Your task to perform on an android device: move an email to a new category in the gmail app Image 0: 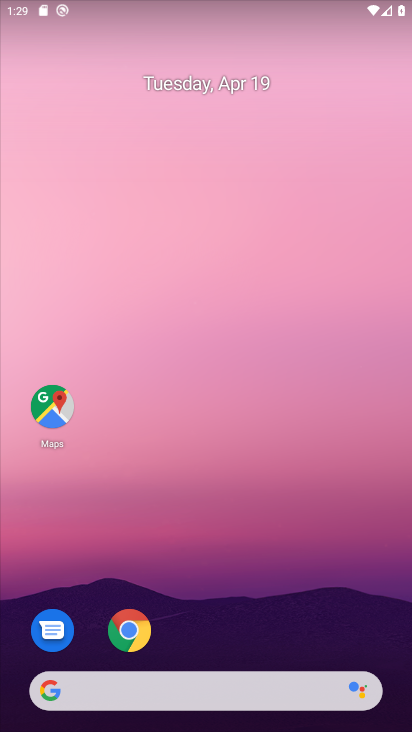
Step 0: drag from (218, 620) to (262, 2)
Your task to perform on an android device: move an email to a new category in the gmail app Image 1: 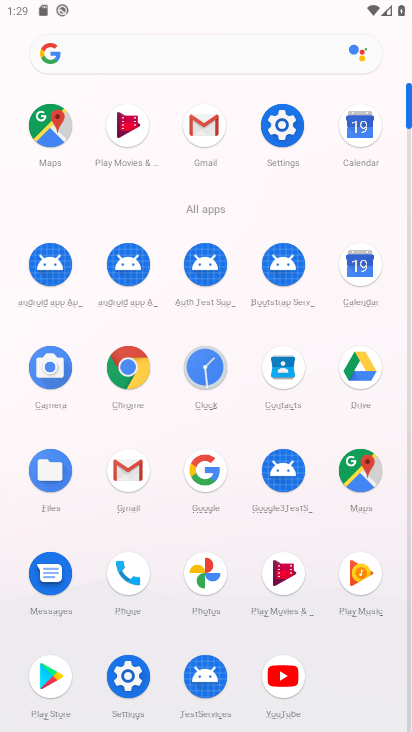
Step 1: click (208, 128)
Your task to perform on an android device: move an email to a new category in the gmail app Image 2: 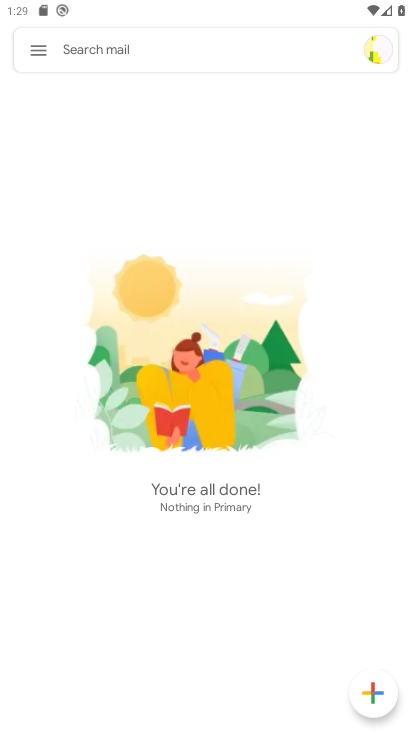
Step 2: click (33, 48)
Your task to perform on an android device: move an email to a new category in the gmail app Image 3: 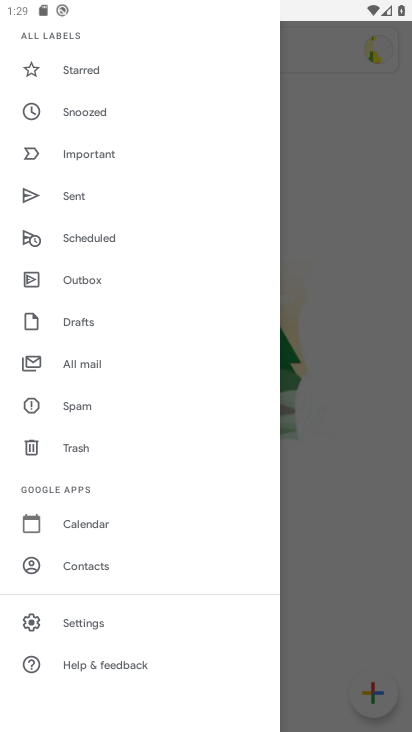
Step 3: click (69, 359)
Your task to perform on an android device: move an email to a new category in the gmail app Image 4: 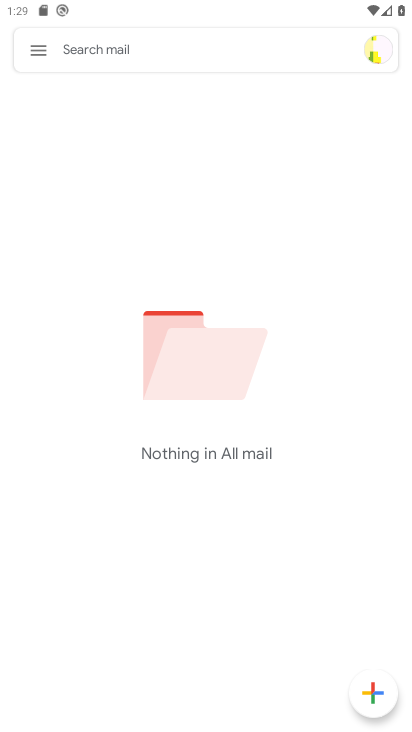
Step 4: task complete